Your task to perform on an android device: Search for pizza restaurants on Maps Image 0: 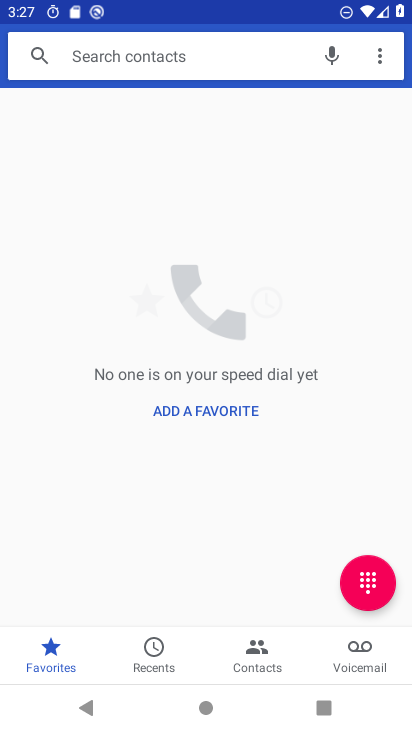
Step 0: press home button
Your task to perform on an android device: Search for pizza restaurants on Maps Image 1: 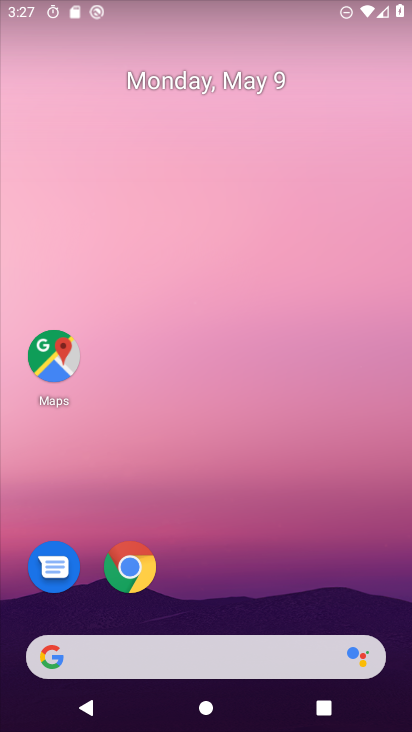
Step 1: click (59, 363)
Your task to perform on an android device: Search for pizza restaurants on Maps Image 2: 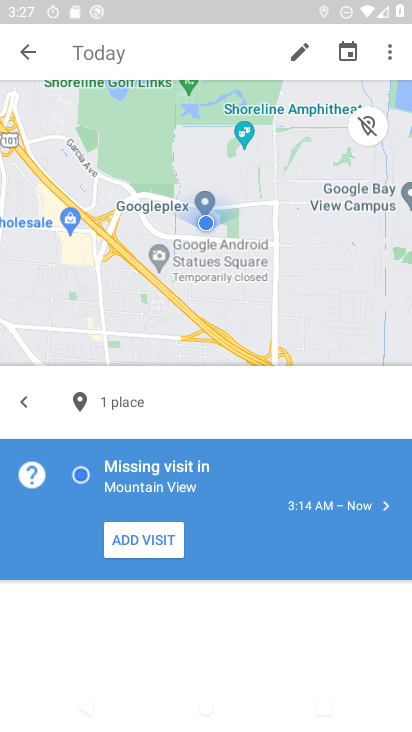
Step 2: click (23, 56)
Your task to perform on an android device: Search for pizza restaurants on Maps Image 3: 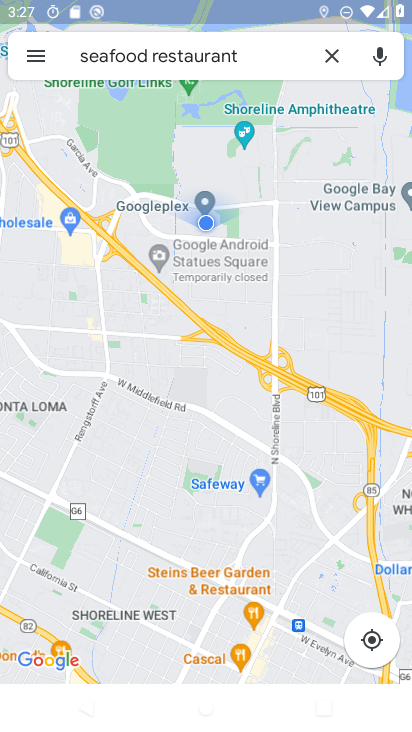
Step 3: click (175, 53)
Your task to perform on an android device: Search for pizza restaurants on Maps Image 4: 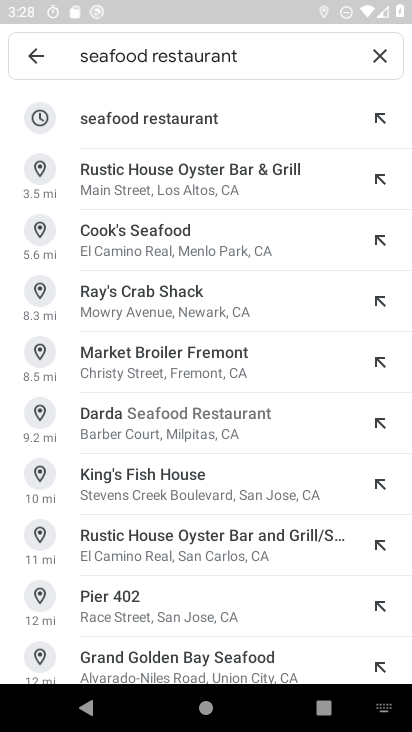
Step 4: click (385, 56)
Your task to perform on an android device: Search for pizza restaurants on Maps Image 5: 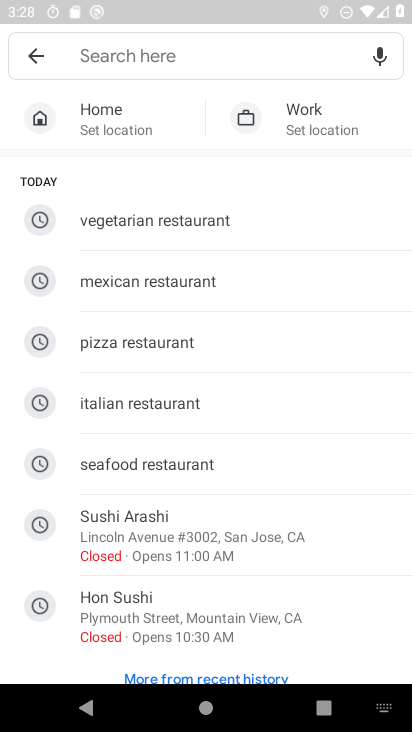
Step 5: type "pizza restaurants"
Your task to perform on an android device: Search for pizza restaurants on Maps Image 6: 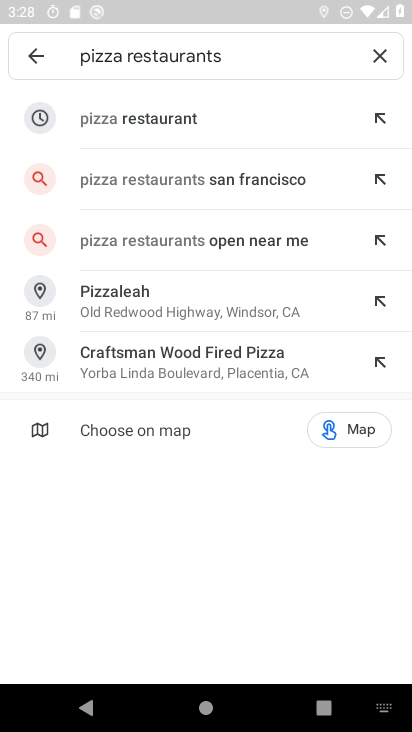
Step 6: click (207, 117)
Your task to perform on an android device: Search for pizza restaurants on Maps Image 7: 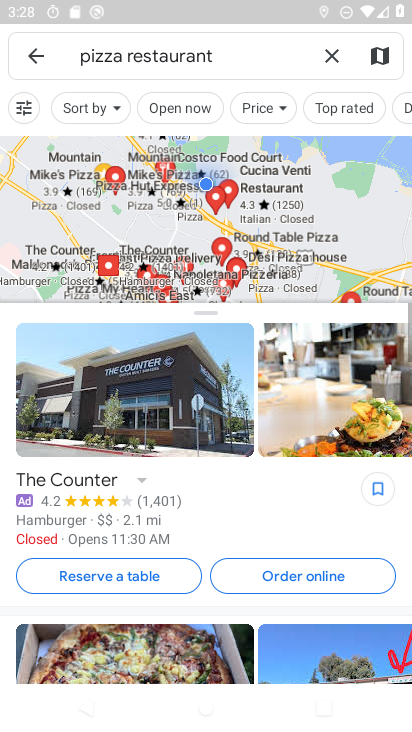
Step 7: task complete